Your task to perform on an android device: open app "Cash App" Image 0: 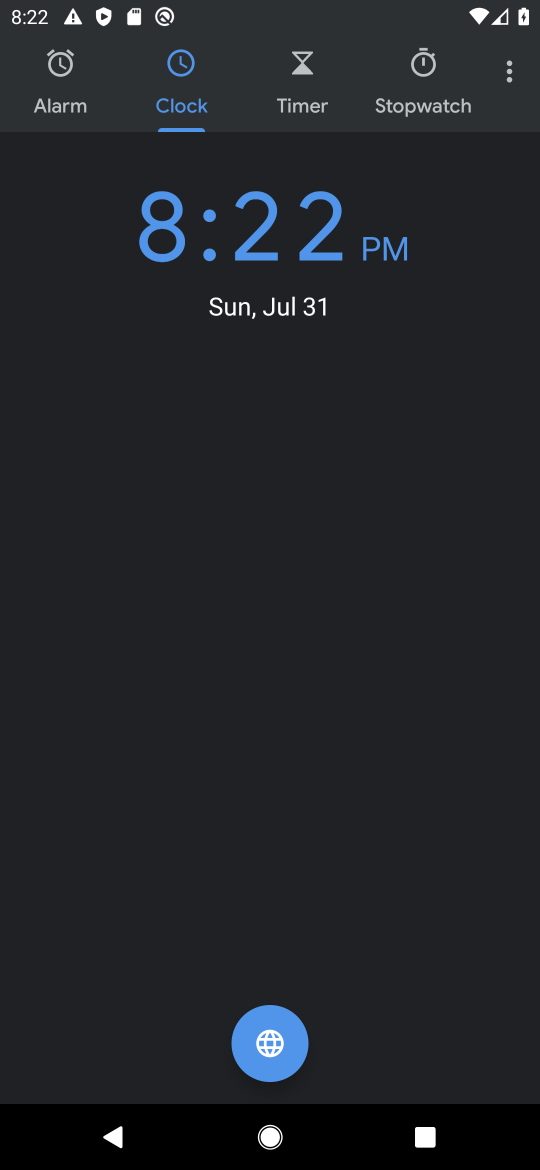
Step 0: press home button
Your task to perform on an android device: open app "Cash App" Image 1: 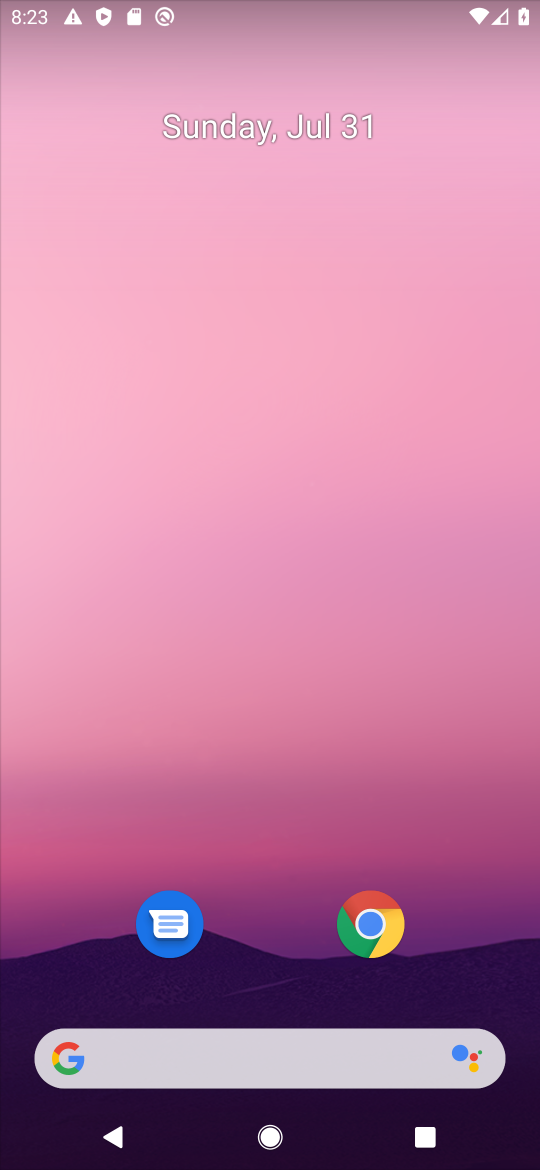
Step 1: drag from (278, 951) to (1, 1125)
Your task to perform on an android device: open app "Cash App" Image 2: 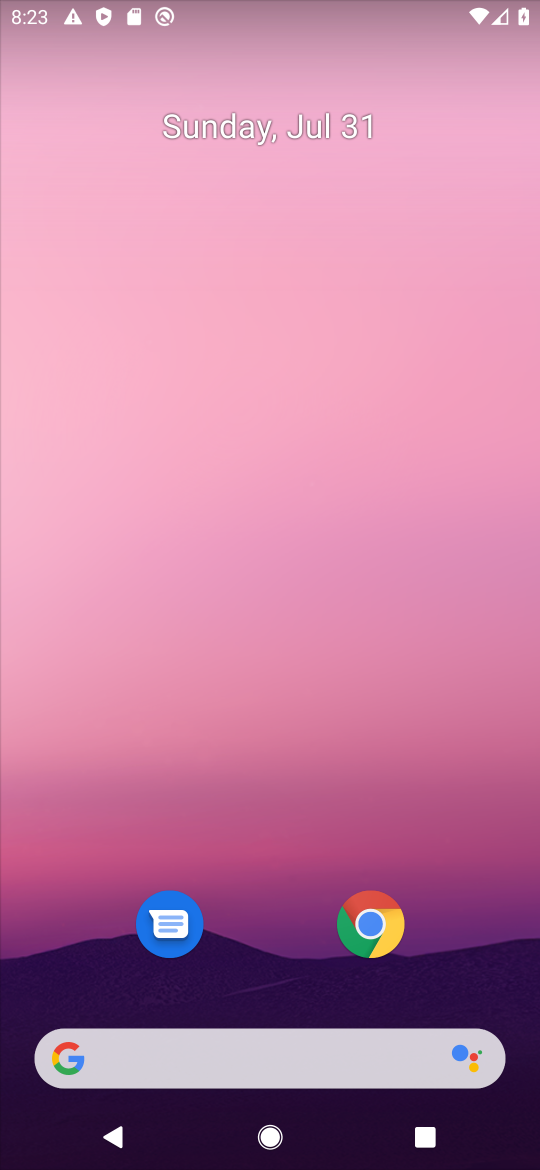
Step 2: drag from (231, 959) to (34, 174)
Your task to perform on an android device: open app "Cash App" Image 3: 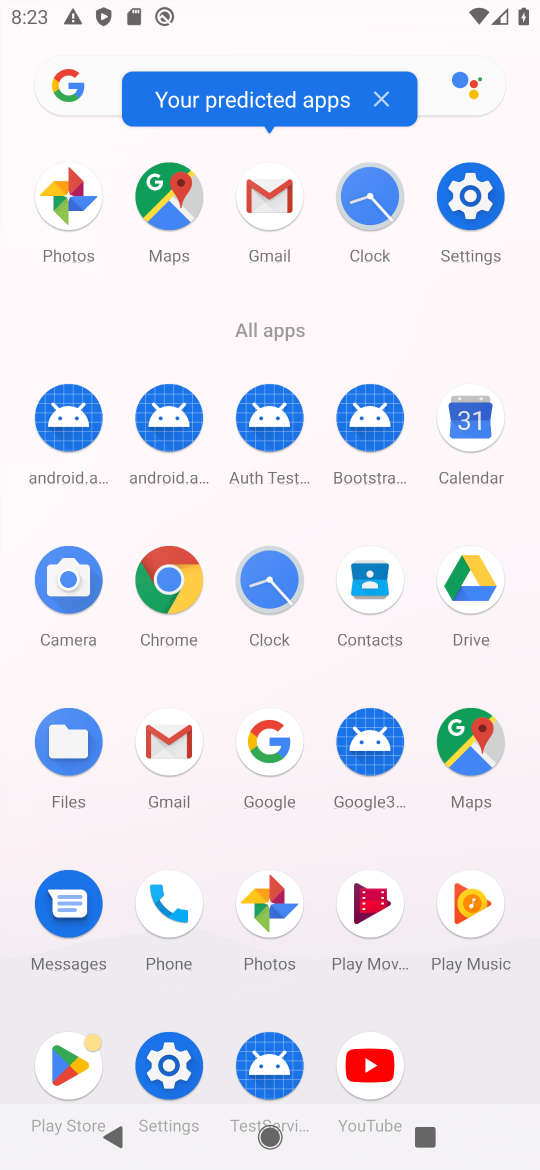
Step 3: click (76, 1061)
Your task to perform on an android device: open app "Cash App" Image 4: 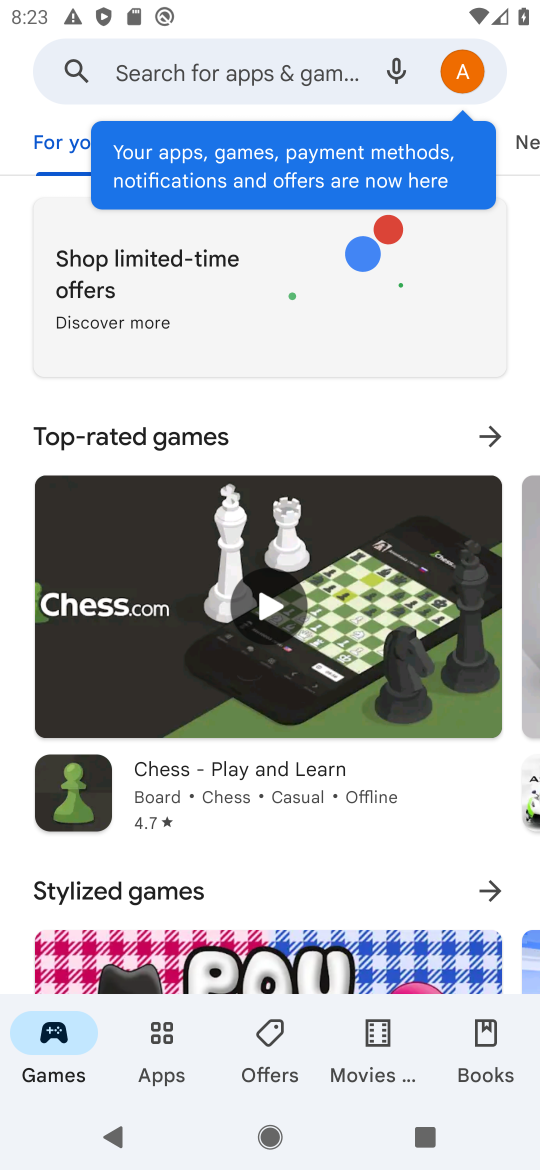
Step 4: click (185, 68)
Your task to perform on an android device: open app "Cash App" Image 5: 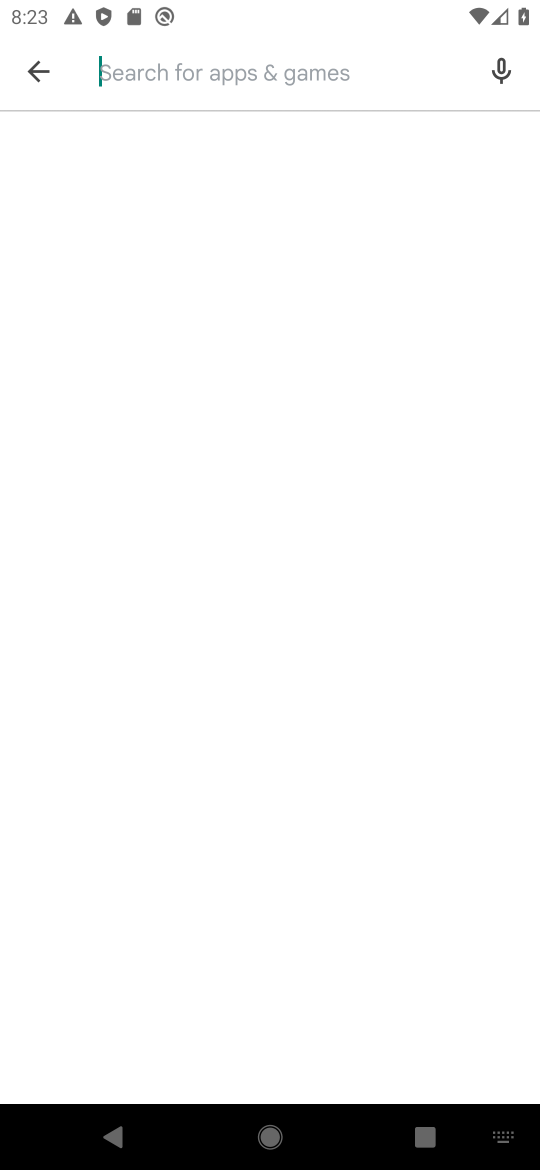
Step 5: type "cash app"
Your task to perform on an android device: open app "Cash App" Image 6: 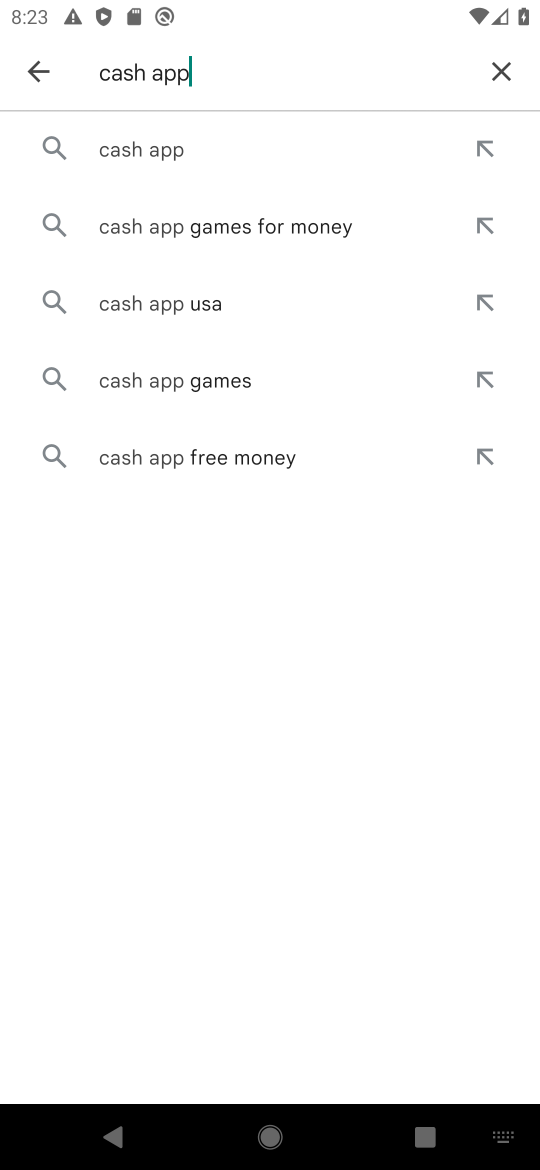
Step 6: click (145, 156)
Your task to perform on an android device: open app "Cash App" Image 7: 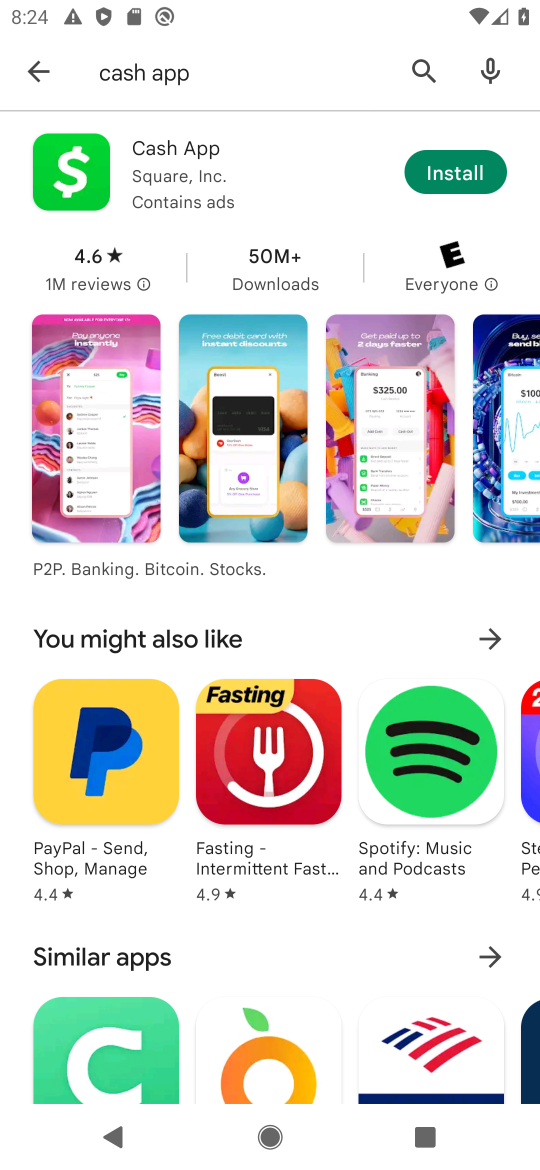
Step 7: task complete